Your task to perform on an android device: Search for seafood restaurants on Google Maps Image 0: 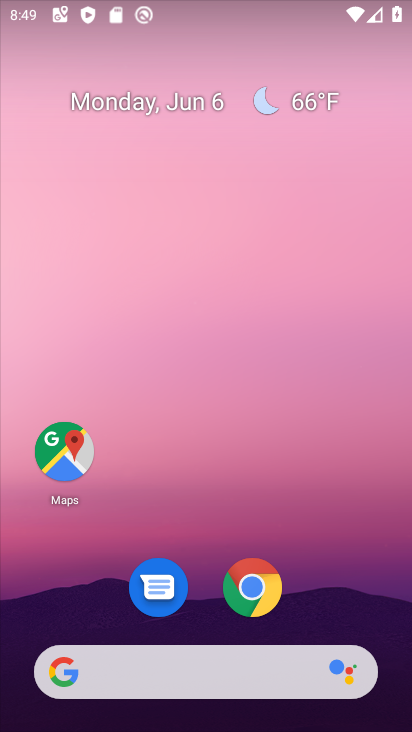
Step 0: click (58, 428)
Your task to perform on an android device: Search for seafood restaurants on Google Maps Image 1: 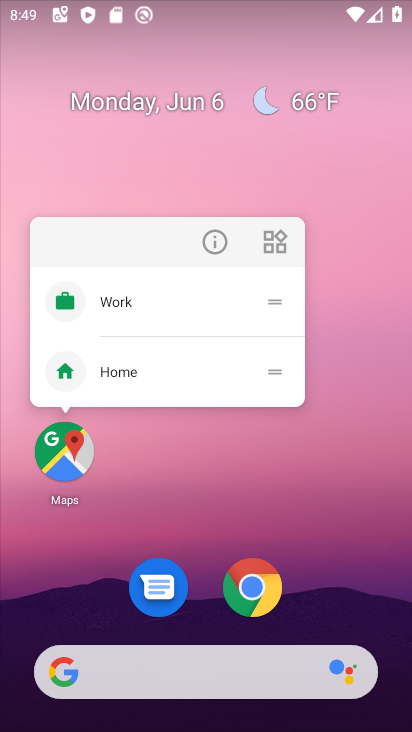
Step 1: click (66, 447)
Your task to perform on an android device: Search for seafood restaurants on Google Maps Image 2: 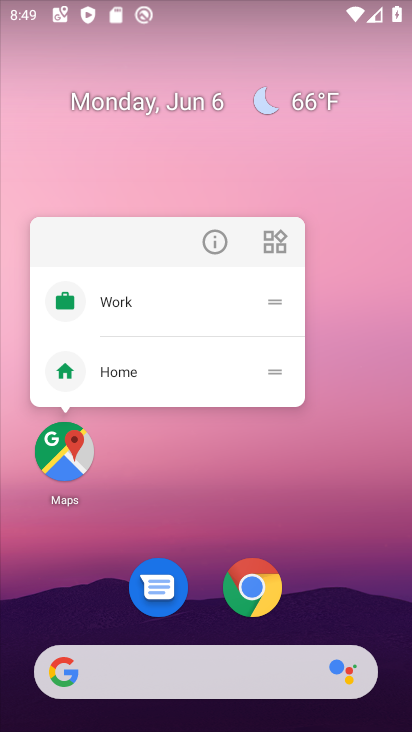
Step 2: click (62, 447)
Your task to perform on an android device: Search for seafood restaurants on Google Maps Image 3: 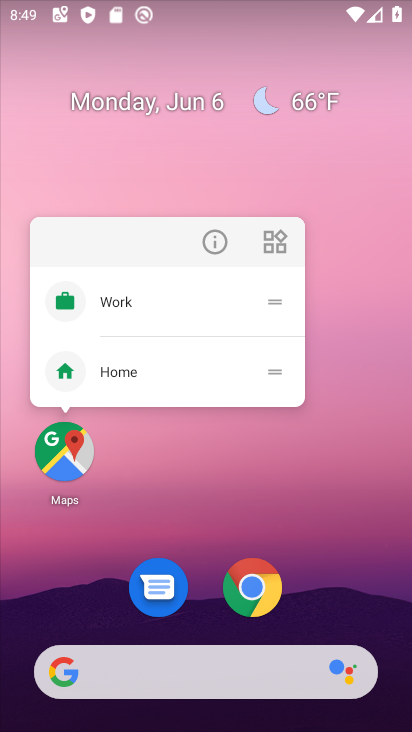
Step 3: click (60, 475)
Your task to perform on an android device: Search for seafood restaurants on Google Maps Image 4: 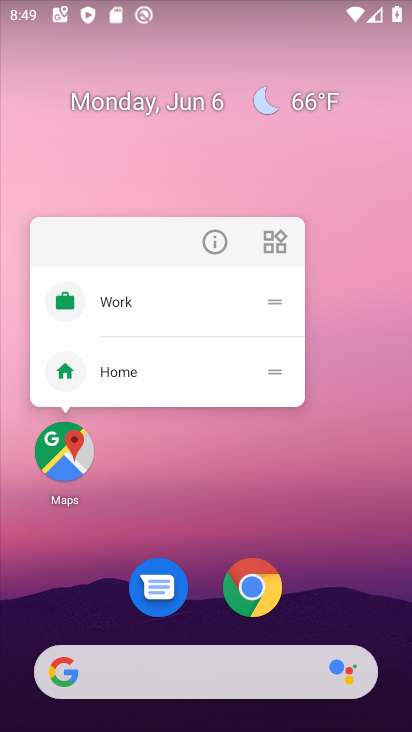
Step 4: click (68, 470)
Your task to perform on an android device: Search for seafood restaurants on Google Maps Image 5: 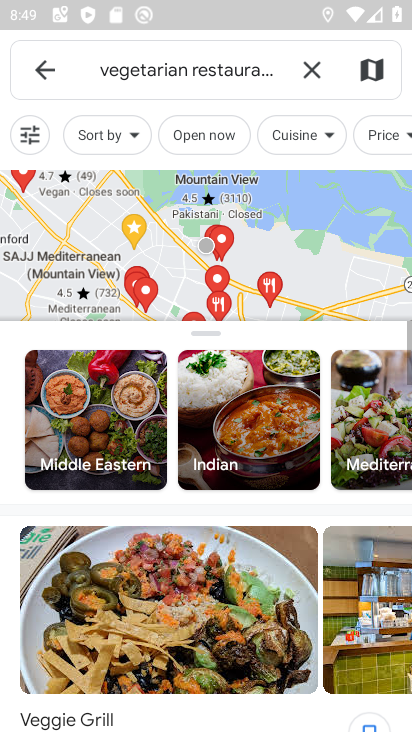
Step 5: click (303, 77)
Your task to perform on an android device: Search for seafood restaurants on Google Maps Image 6: 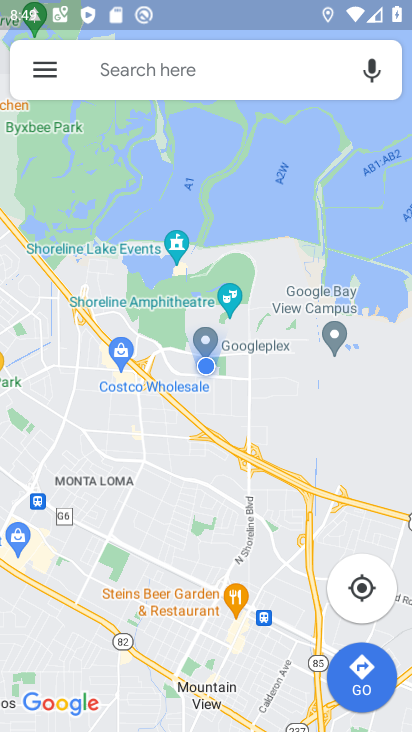
Step 6: click (165, 82)
Your task to perform on an android device: Search for seafood restaurants on Google Maps Image 7: 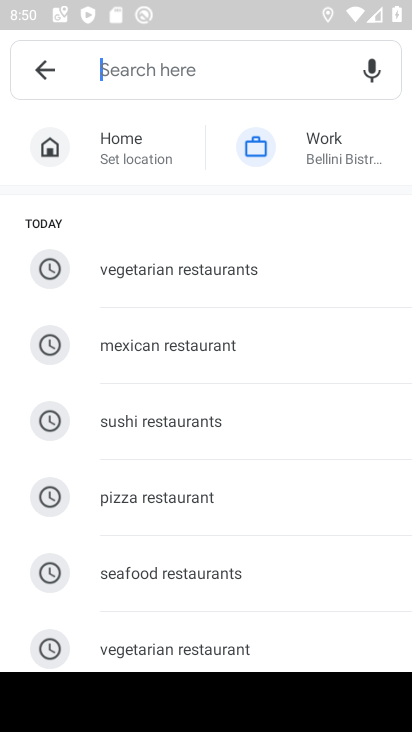
Step 7: type "seafood restaurants"
Your task to perform on an android device: Search for seafood restaurants on Google Maps Image 8: 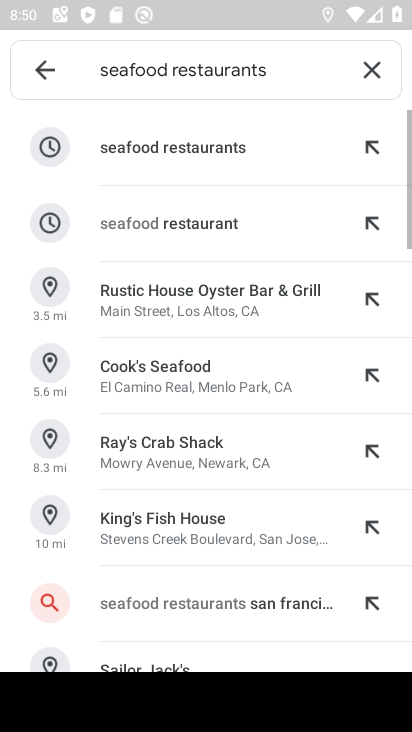
Step 8: click (239, 160)
Your task to perform on an android device: Search for seafood restaurants on Google Maps Image 9: 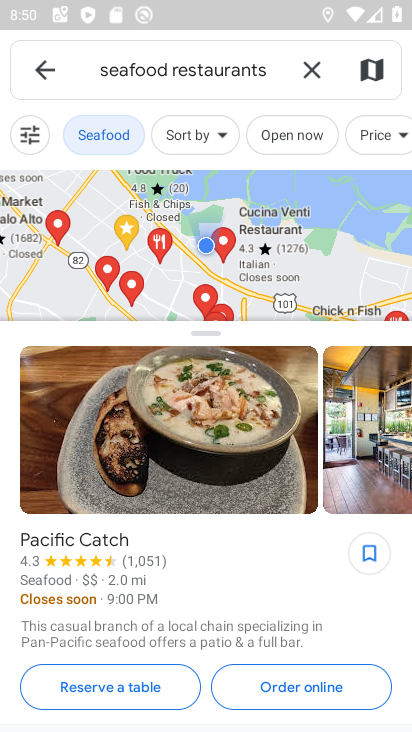
Step 9: task complete